Your task to perform on an android device: toggle show notifications on the lock screen Image 0: 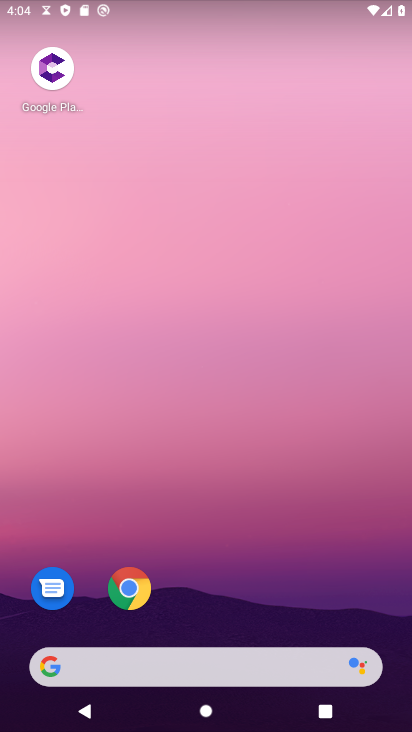
Step 0: drag from (19, 703) to (177, 46)
Your task to perform on an android device: toggle show notifications on the lock screen Image 1: 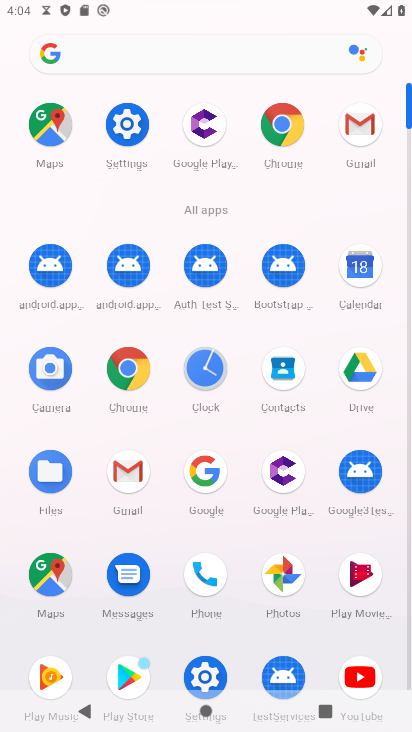
Step 1: click (216, 674)
Your task to perform on an android device: toggle show notifications on the lock screen Image 2: 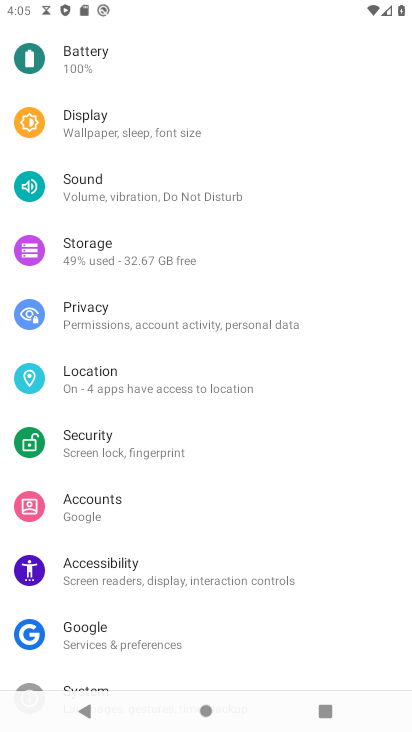
Step 2: drag from (240, 619) to (244, 408)
Your task to perform on an android device: toggle show notifications on the lock screen Image 3: 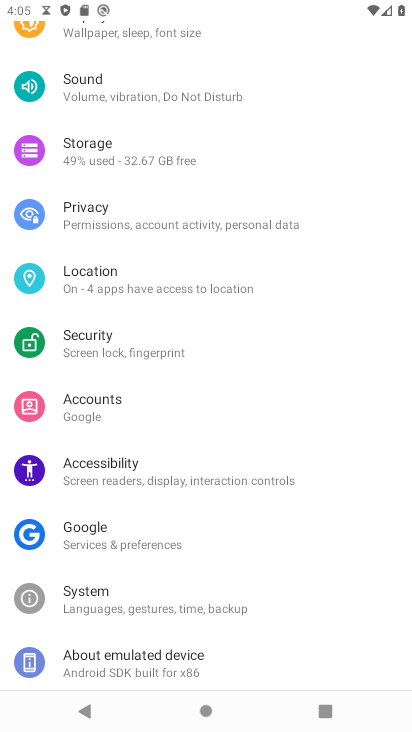
Step 3: drag from (281, 145) to (310, 288)
Your task to perform on an android device: toggle show notifications on the lock screen Image 4: 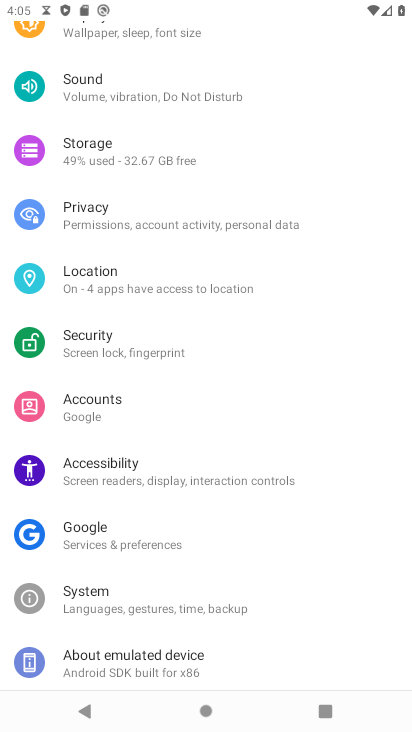
Step 4: click (152, 223)
Your task to perform on an android device: toggle show notifications on the lock screen Image 5: 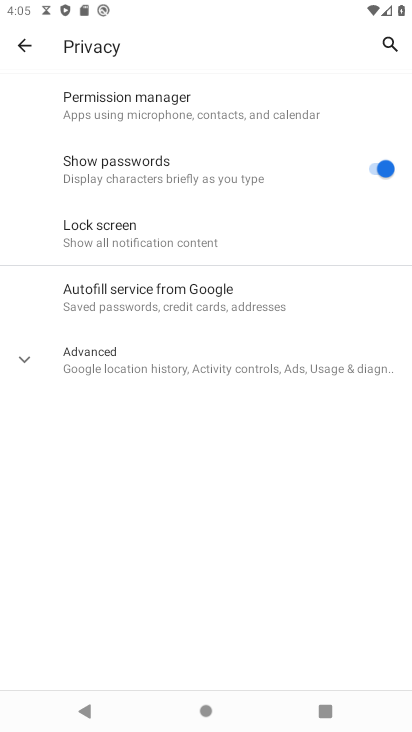
Step 5: click (108, 237)
Your task to perform on an android device: toggle show notifications on the lock screen Image 6: 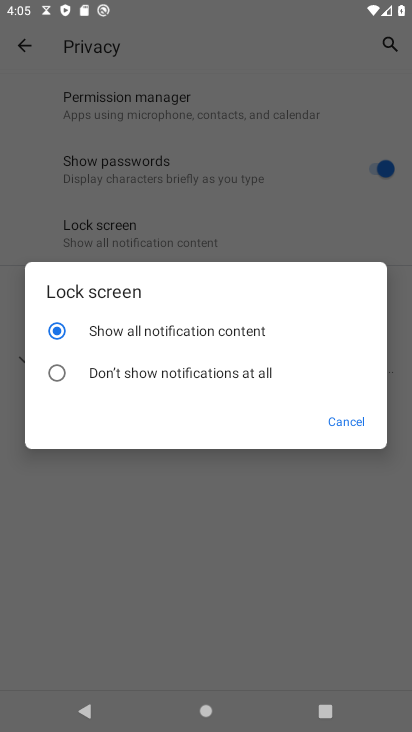
Step 6: task complete